Your task to perform on an android device: change the clock display to analog Image 0: 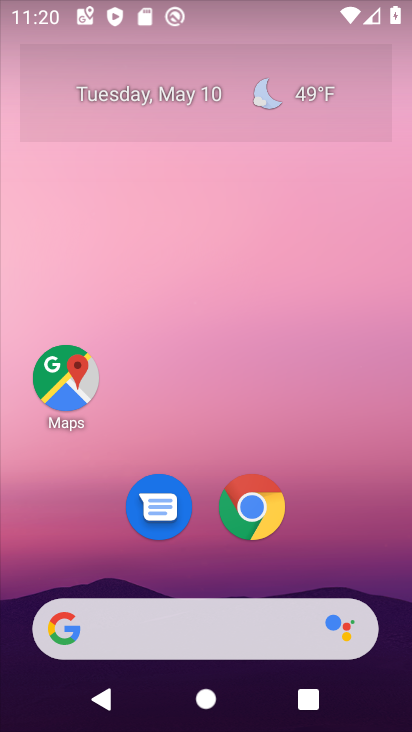
Step 0: drag from (200, 568) to (266, 92)
Your task to perform on an android device: change the clock display to analog Image 1: 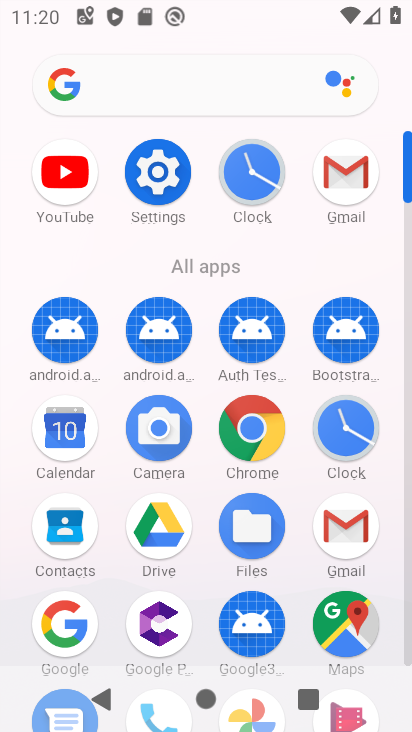
Step 1: click (341, 438)
Your task to perform on an android device: change the clock display to analog Image 2: 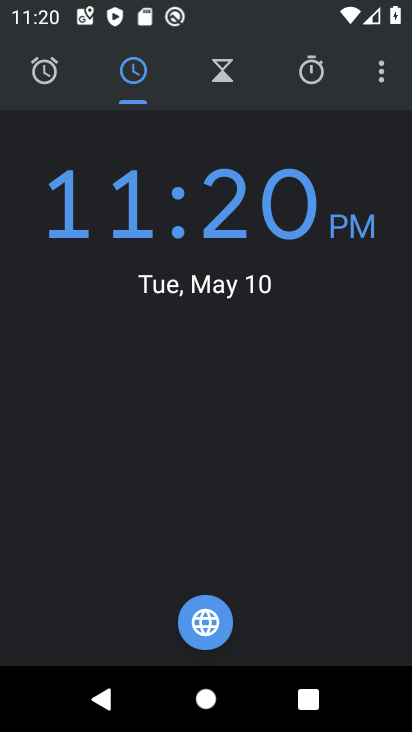
Step 2: click (367, 71)
Your task to perform on an android device: change the clock display to analog Image 3: 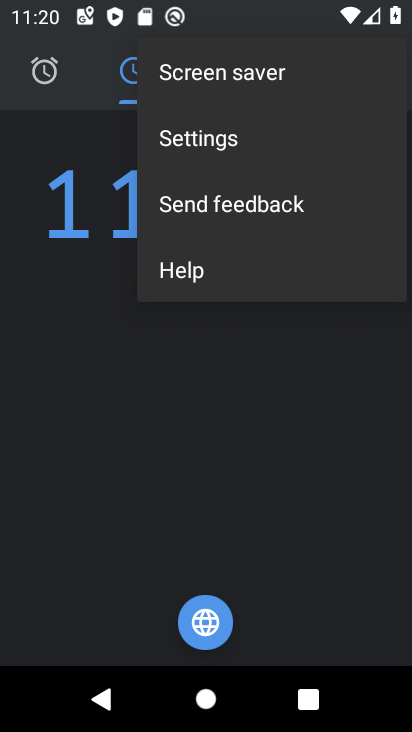
Step 3: click (260, 135)
Your task to perform on an android device: change the clock display to analog Image 4: 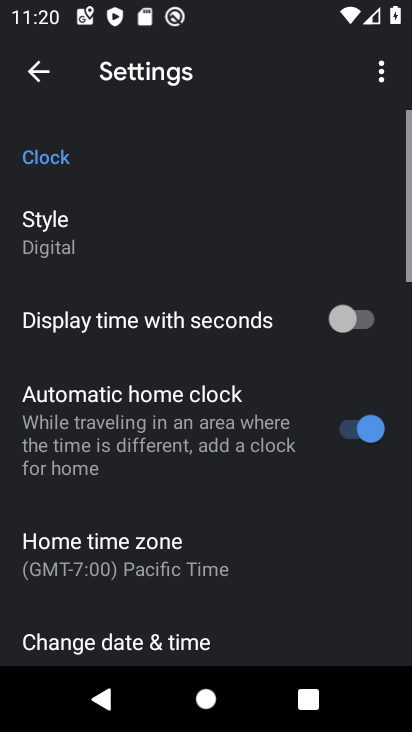
Step 4: click (89, 219)
Your task to perform on an android device: change the clock display to analog Image 5: 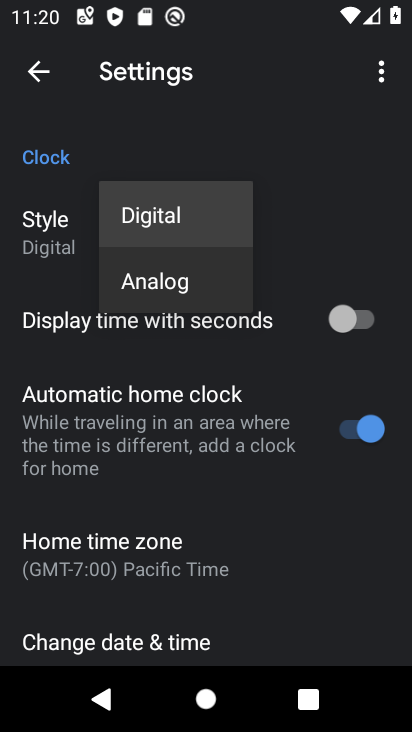
Step 5: click (144, 277)
Your task to perform on an android device: change the clock display to analog Image 6: 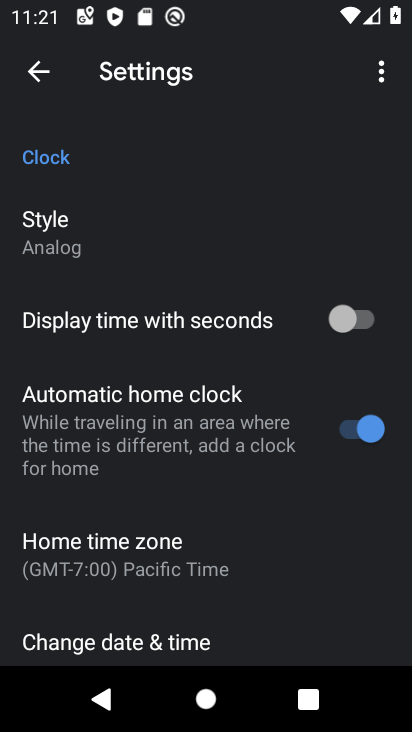
Step 6: task complete